Your task to perform on an android device: set the timer Image 0: 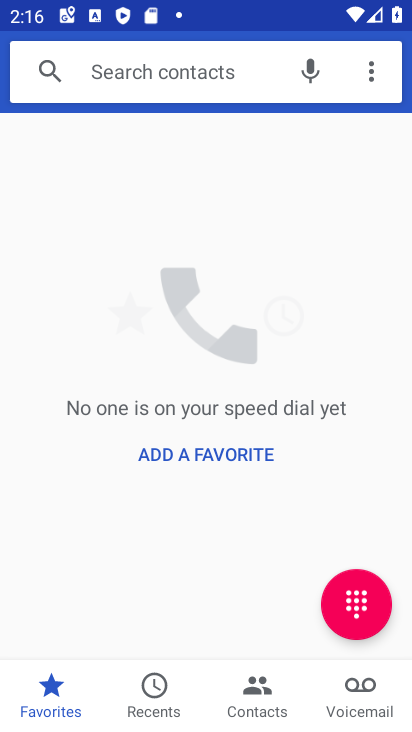
Step 0: press home button
Your task to perform on an android device: set the timer Image 1: 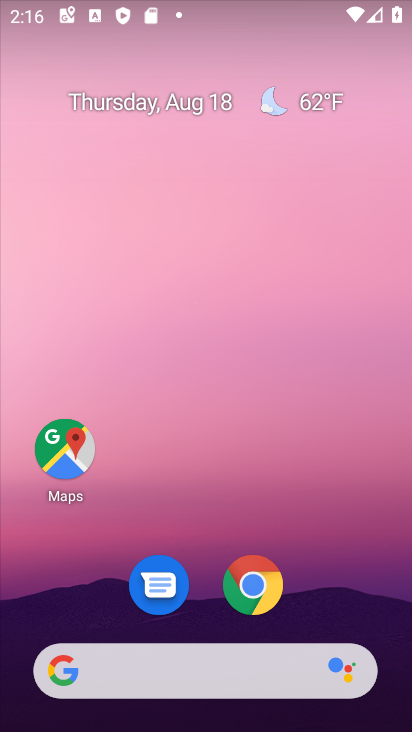
Step 1: drag from (220, 535) to (191, 0)
Your task to perform on an android device: set the timer Image 2: 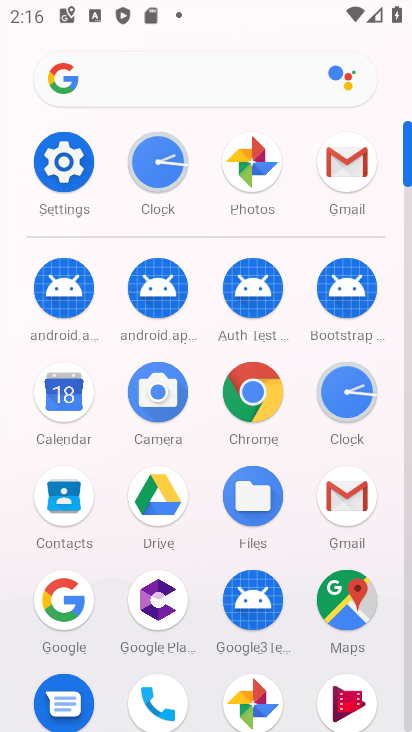
Step 2: click (154, 177)
Your task to perform on an android device: set the timer Image 3: 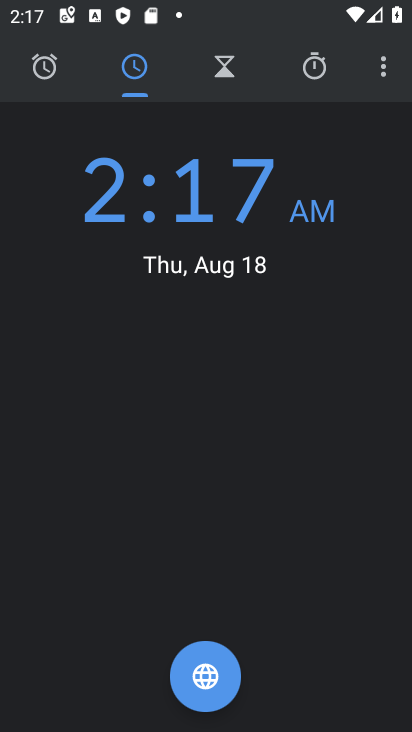
Step 3: click (226, 75)
Your task to perform on an android device: set the timer Image 4: 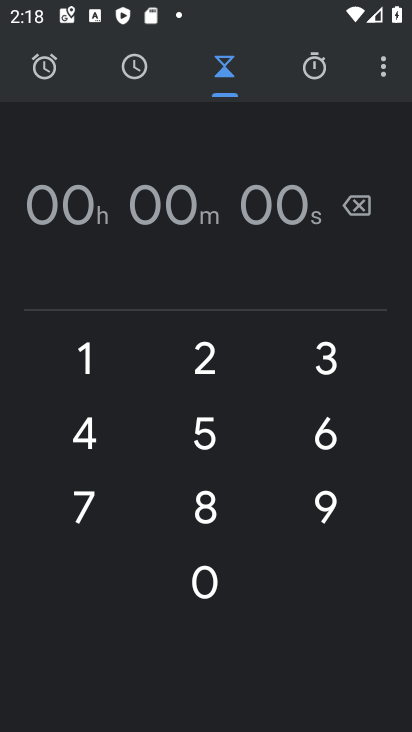
Step 4: task complete